Your task to perform on an android device: Do I have any events this weekend? Image 0: 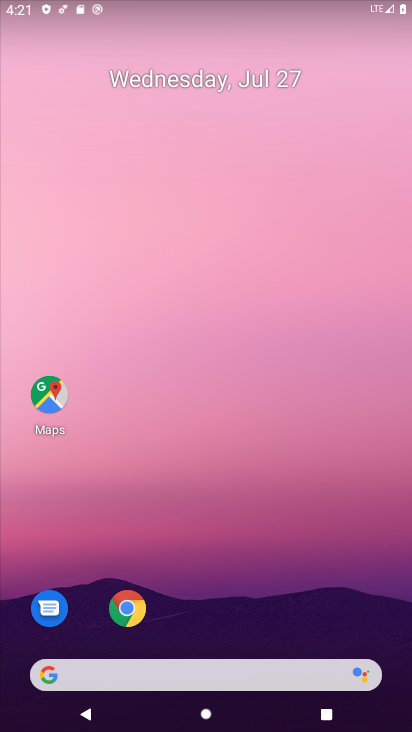
Step 0: drag from (292, 483) to (235, 220)
Your task to perform on an android device: Do I have any events this weekend? Image 1: 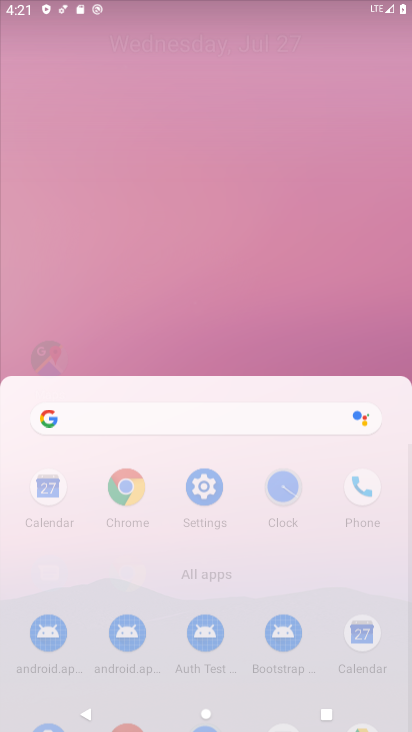
Step 1: drag from (234, 425) to (202, 80)
Your task to perform on an android device: Do I have any events this weekend? Image 2: 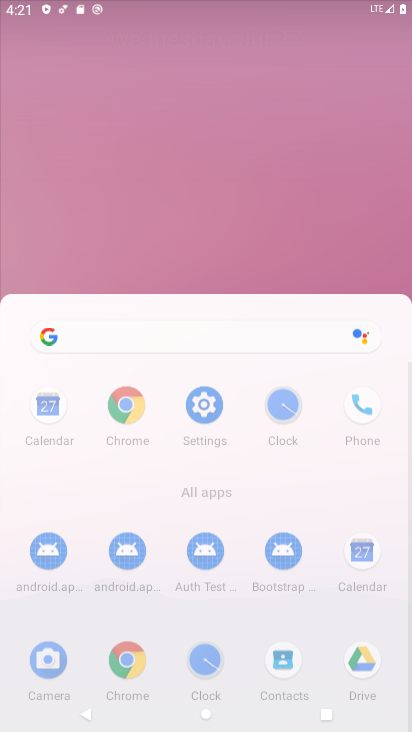
Step 2: drag from (202, 288) to (202, 18)
Your task to perform on an android device: Do I have any events this weekend? Image 3: 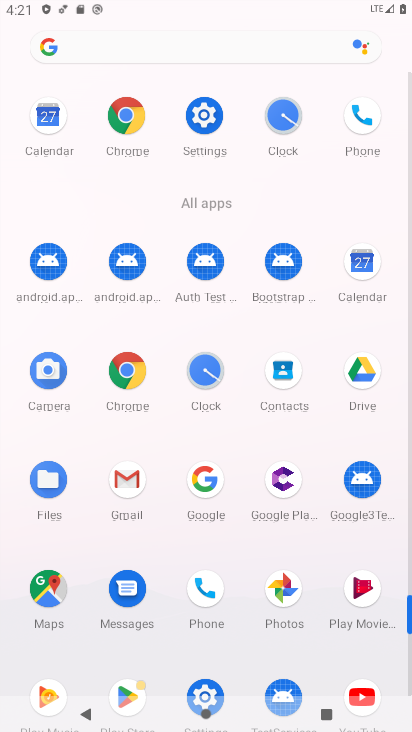
Step 3: drag from (251, 233) to (272, 86)
Your task to perform on an android device: Do I have any events this weekend? Image 4: 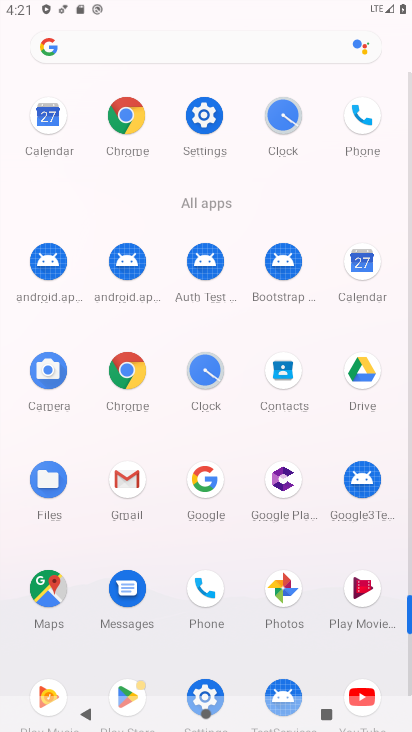
Step 4: click (360, 267)
Your task to perform on an android device: Do I have any events this weekend? Image 5: 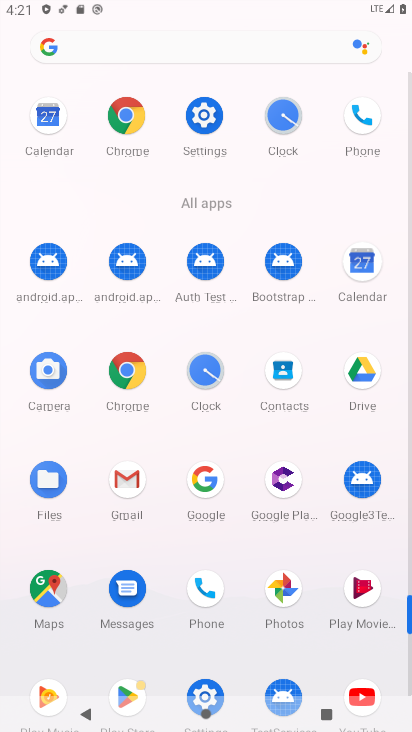
Step 5: click (360, 267)
Your task to perform on an android device: Do I have any events this weekend? Image 6: 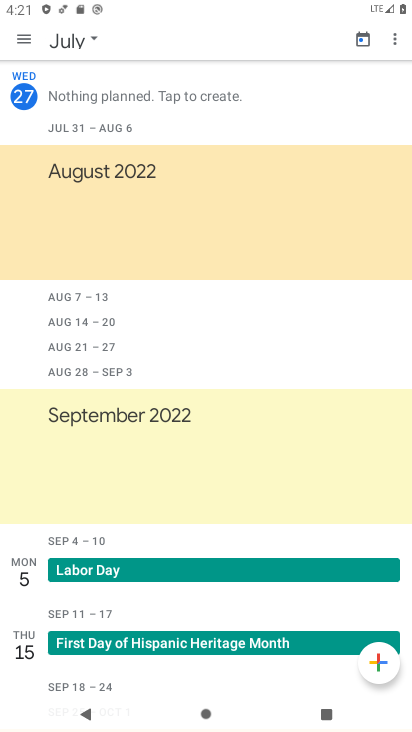
Step 6: click (99, 28)
Your task to perform on an android device: Do I have any events this weekend? Image 7: 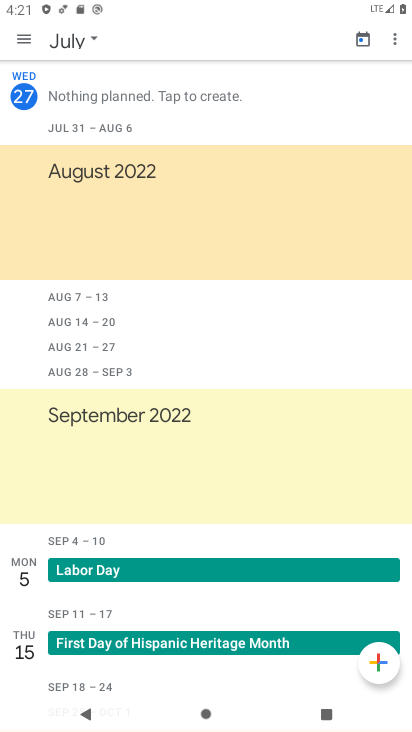
Step 7: click (87, 30)
Your task to perform on an android device: Do I have any events this weekend? Image 8: 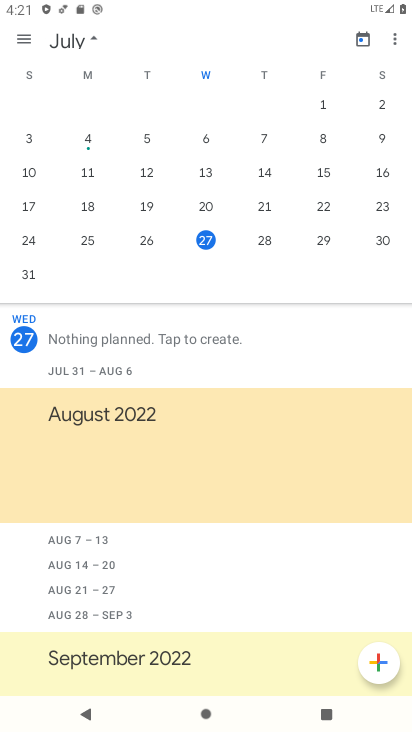
Step 8: click (321, 238)
Your task to perform on an android device: Do I have any events this weekend? Image 9: 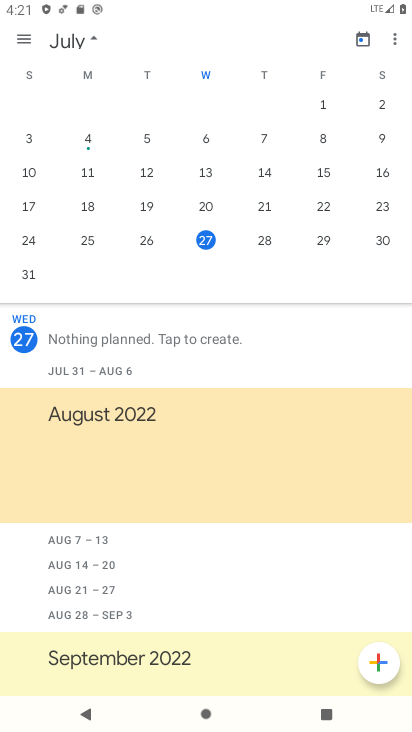
Step 9: click (322, 238)
Your task to perform on an android device: Do I have any events this weekend? Image 10: 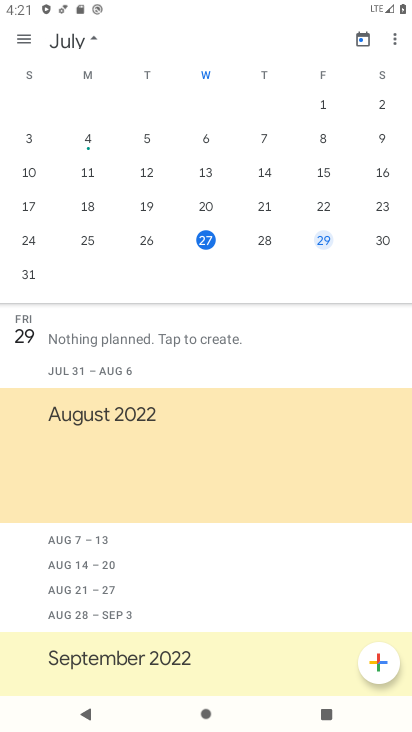
Step 10: click (323, 239)
Your task to perform on an android device: Do I have any events this weekend? Image 11: 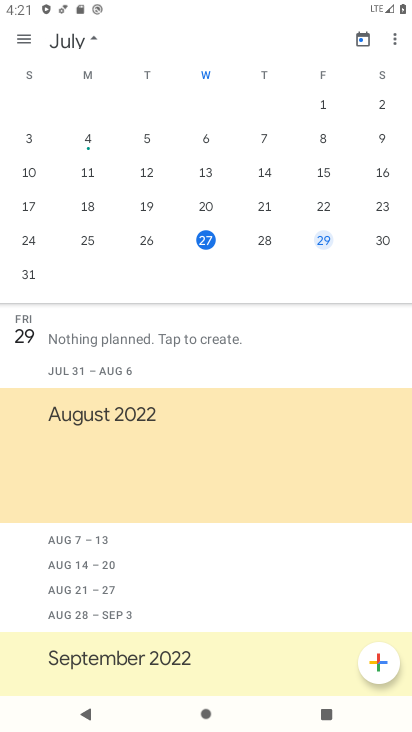
Step 11: click (324, 240)
Your task to perform on an android device: Do I have any events this weekend? Image 12: 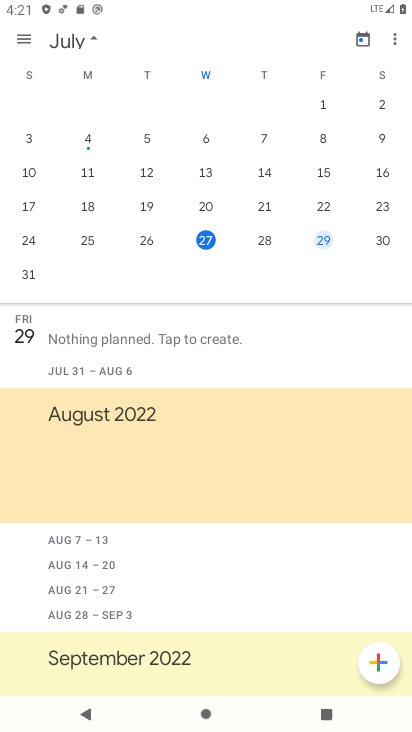
Step 12: click (328, 244)
Your task to perform on an android device: Do I have any events this weekend? Image 13: 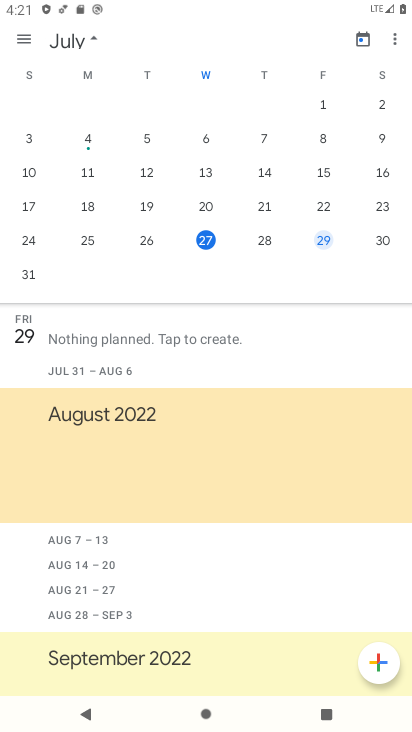
Step 13: click (328, 245)
Your task to perform on an android device: Do I have any events this weekend? Image 14: 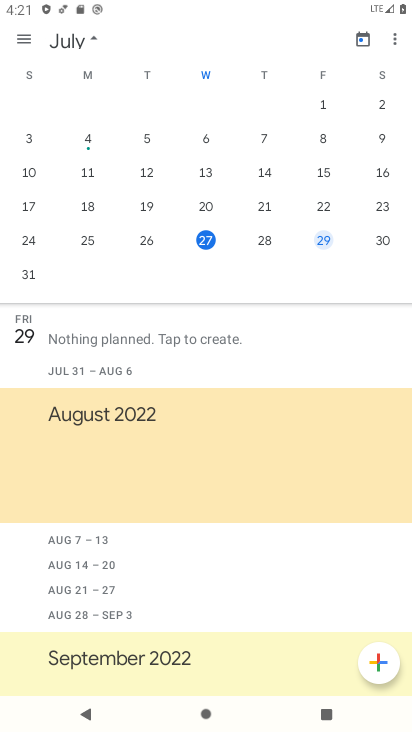
Step 14: task complete